Your task to perform on an android device: Show the shopping cart on amazon.com. Search for macbook on amazon.com, select the first entry, add it to the cart, then select checkout. Image 0: 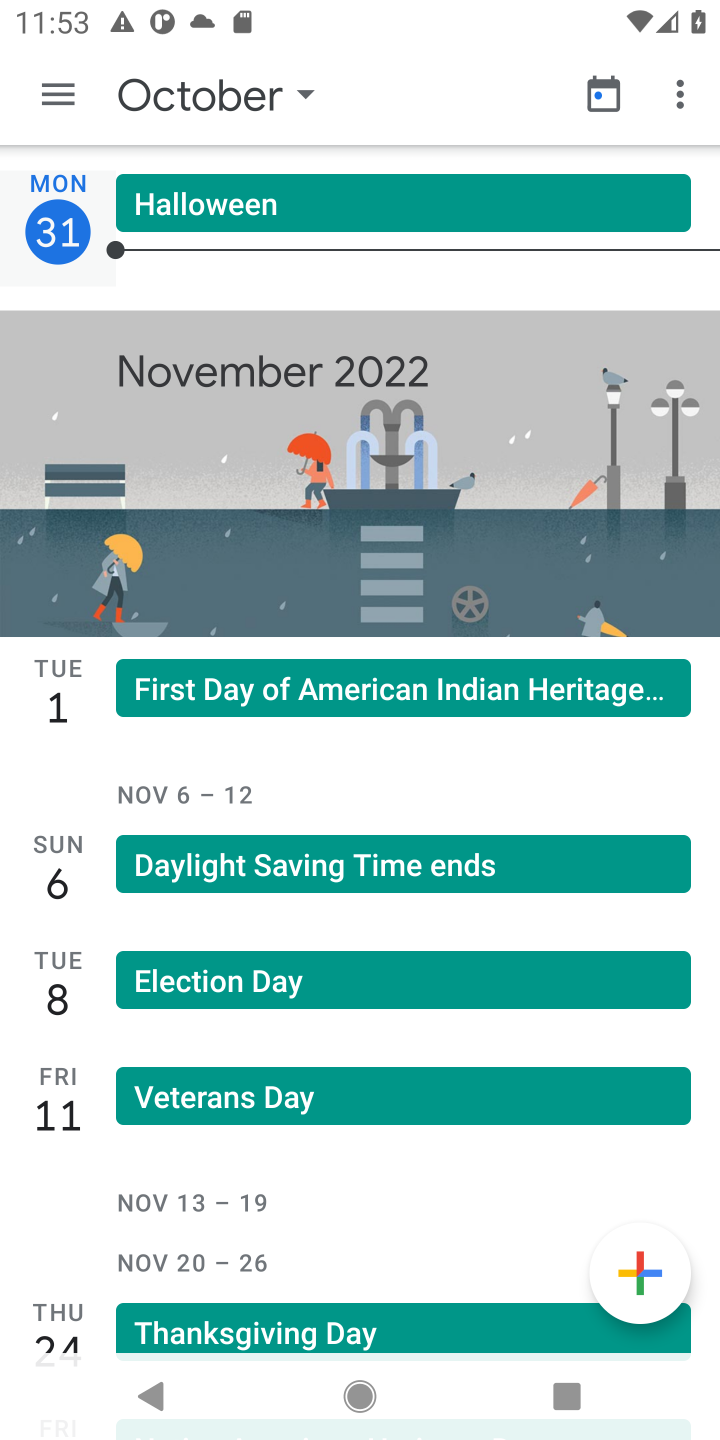
Step 0: press home button
Your task to perform on an android device: Show the shopping cart on amazon.com. Search for macbook on amazon.com, select the first entry, add it to the cart, then select checkout. Image 1: 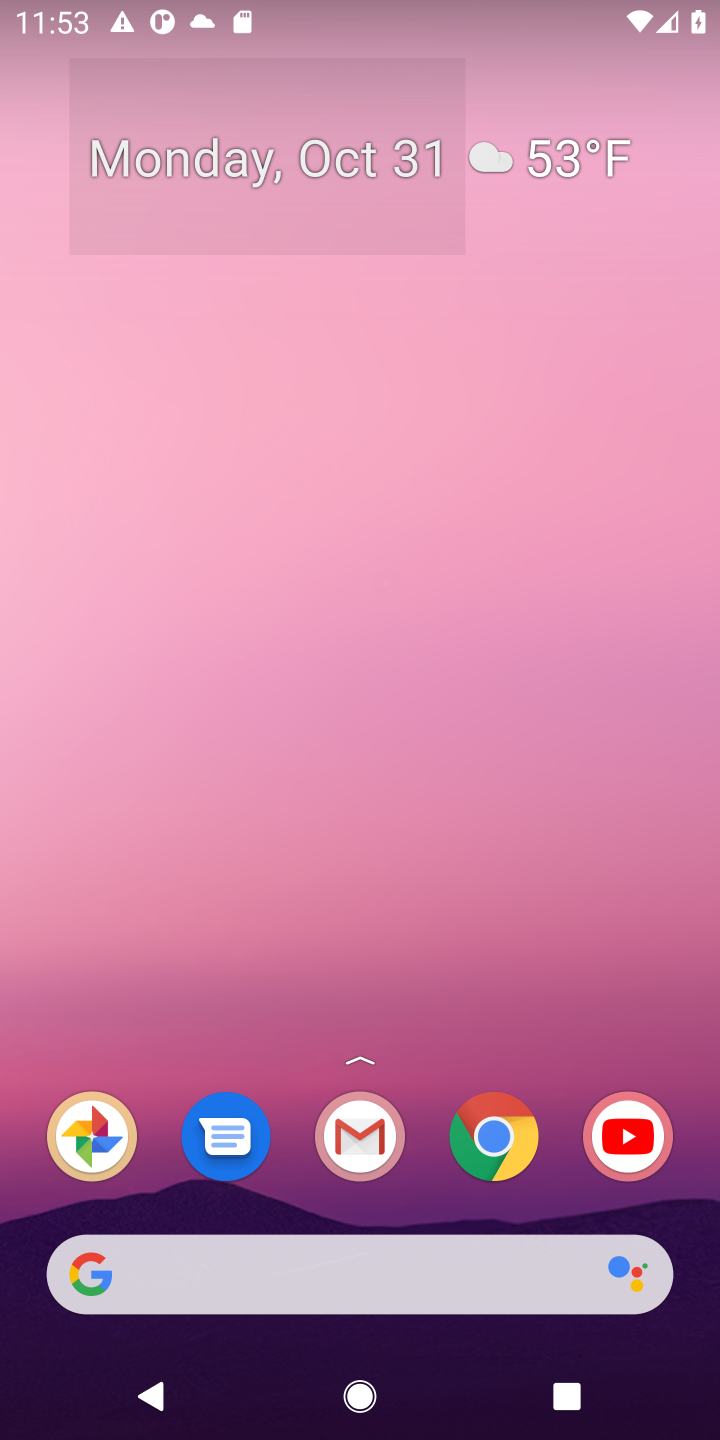
Step 1: click (136, 1269)
Your task to perform on an android device: Show the shopping cart on amazon.com. Search for macbook on amazon.com, select the first entry, add it to the cart, then select checkout. Image 2: 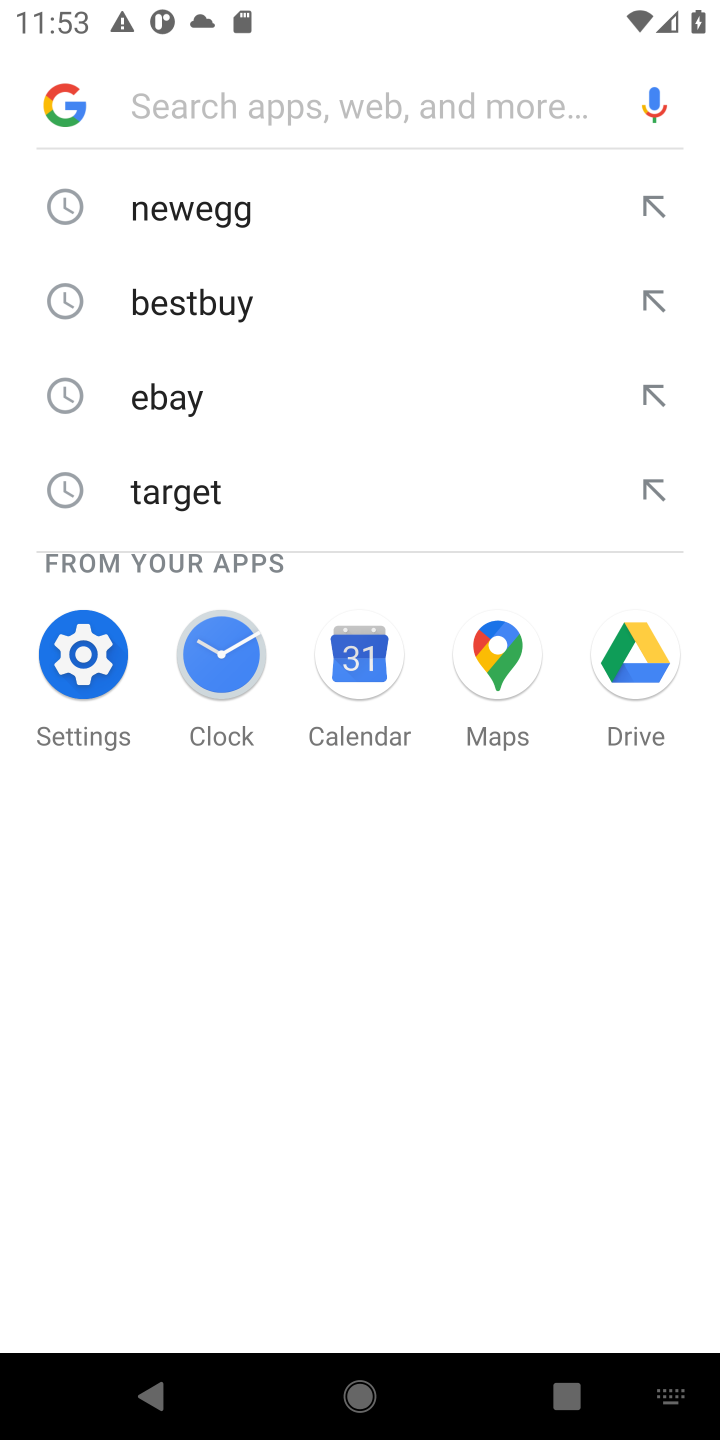
Step 2: type " amazon.com"
Your task to perform on an android device: Show the shopping cart on amazon.com. Search for macbook on amazon.com, select the first entry, add it to the cart, then select checkout. Image 3: 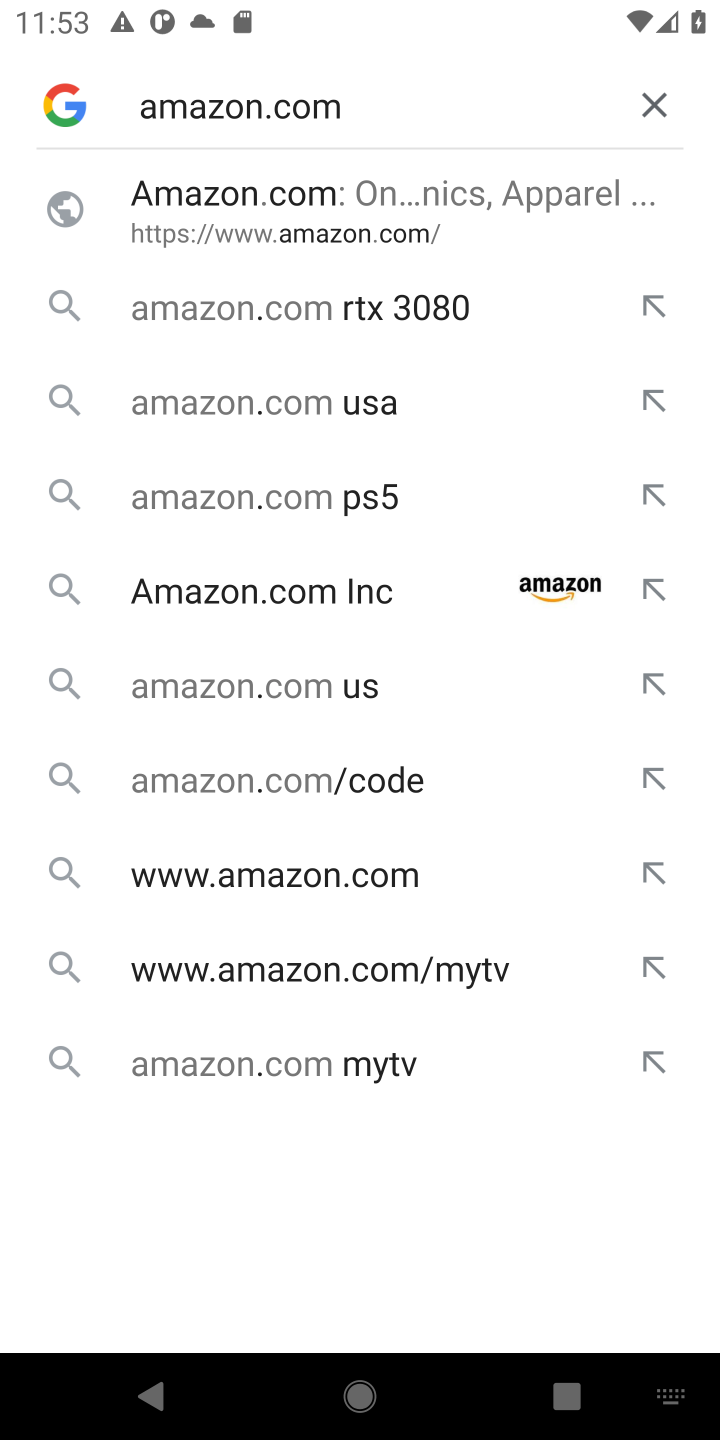
Step 3: press enter
Your task to perform on an android device: Show the shopping cart on amazon.com. Search for macbook on amazon.com, select the first entry, add it to the cart, then select checkout. Image 4: 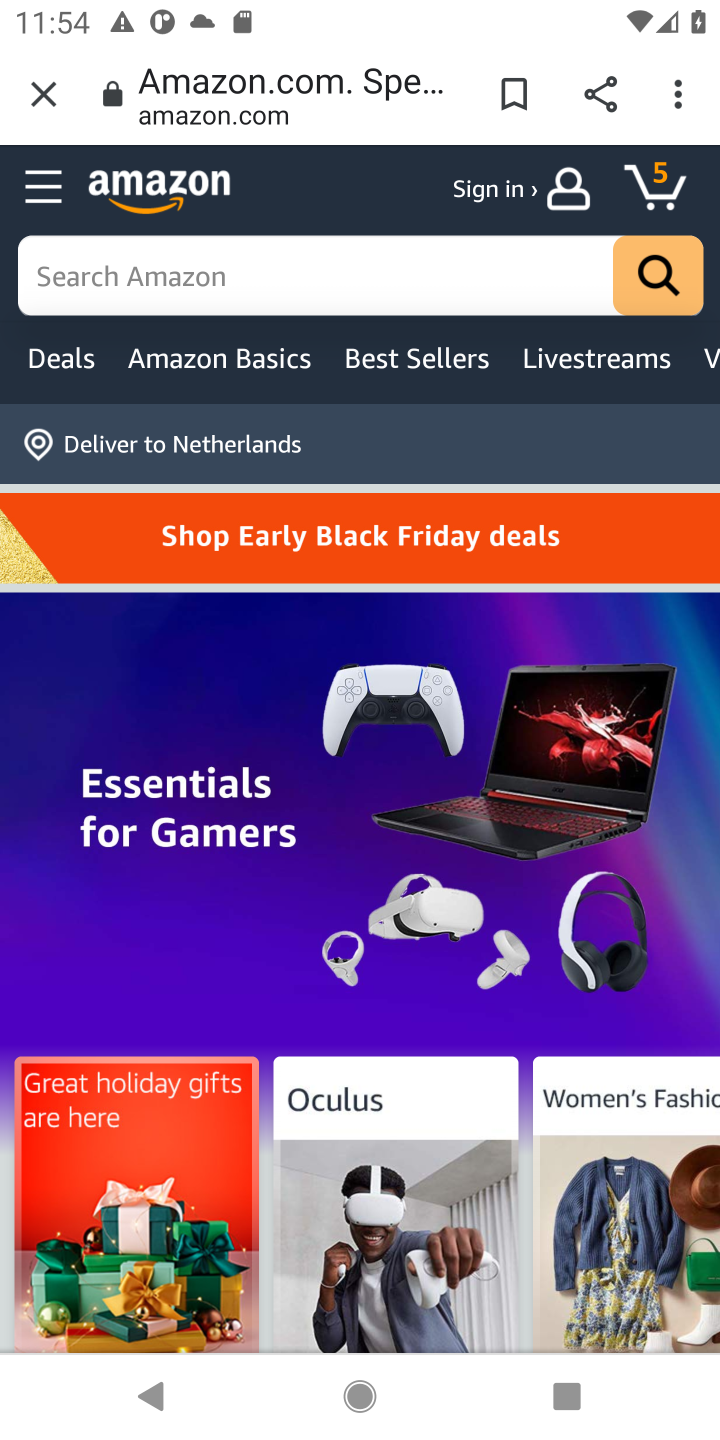
Step 4: click (652, 182)
Your task to perform on an android device: Show the shopping cart on amazon.com. Search for macbook on amazon.com, select the first entry, add it to the cart, then select checkout. Image 5: 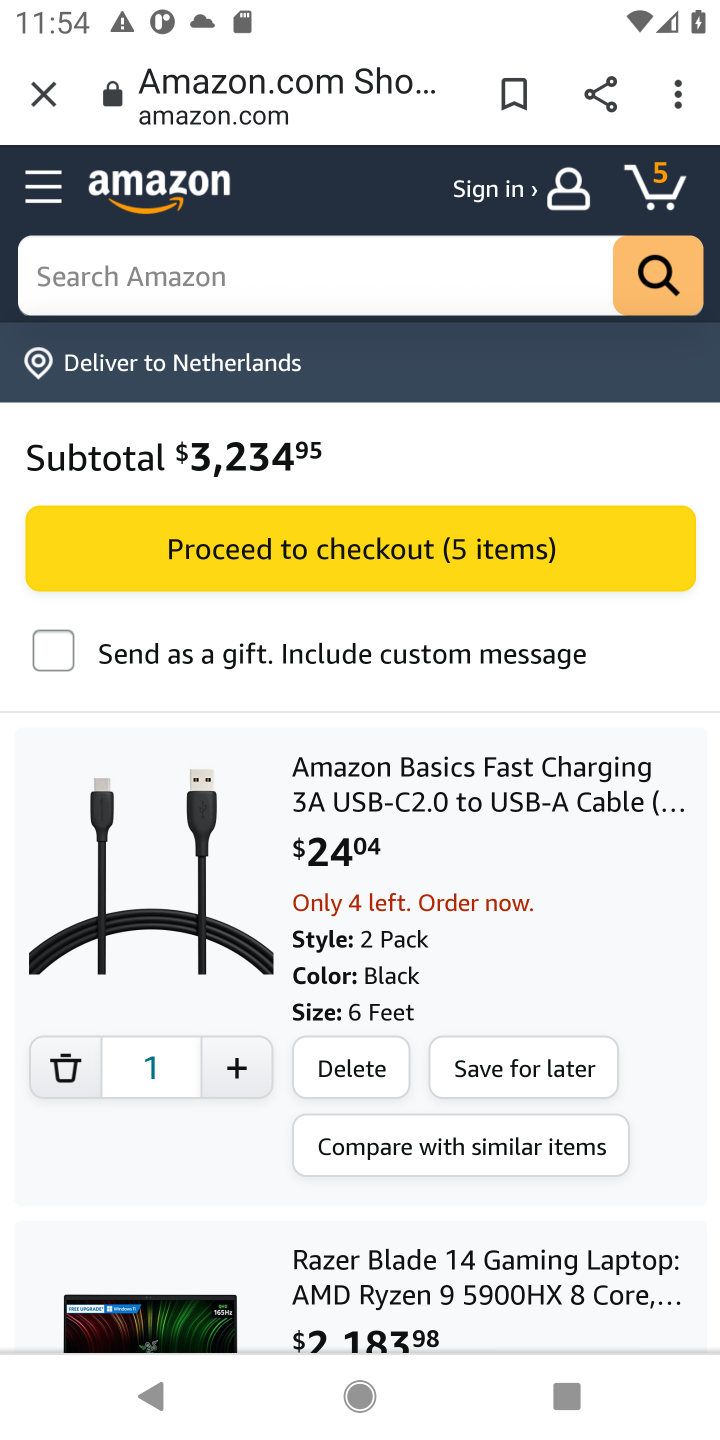
Step 5: click (216, 271)
Your task to perform on an android device: Show the shopping cart on amazon.com. Search for macbook on amazon.com, select the first entry, add it to the cart, then select checkout. Image 6: 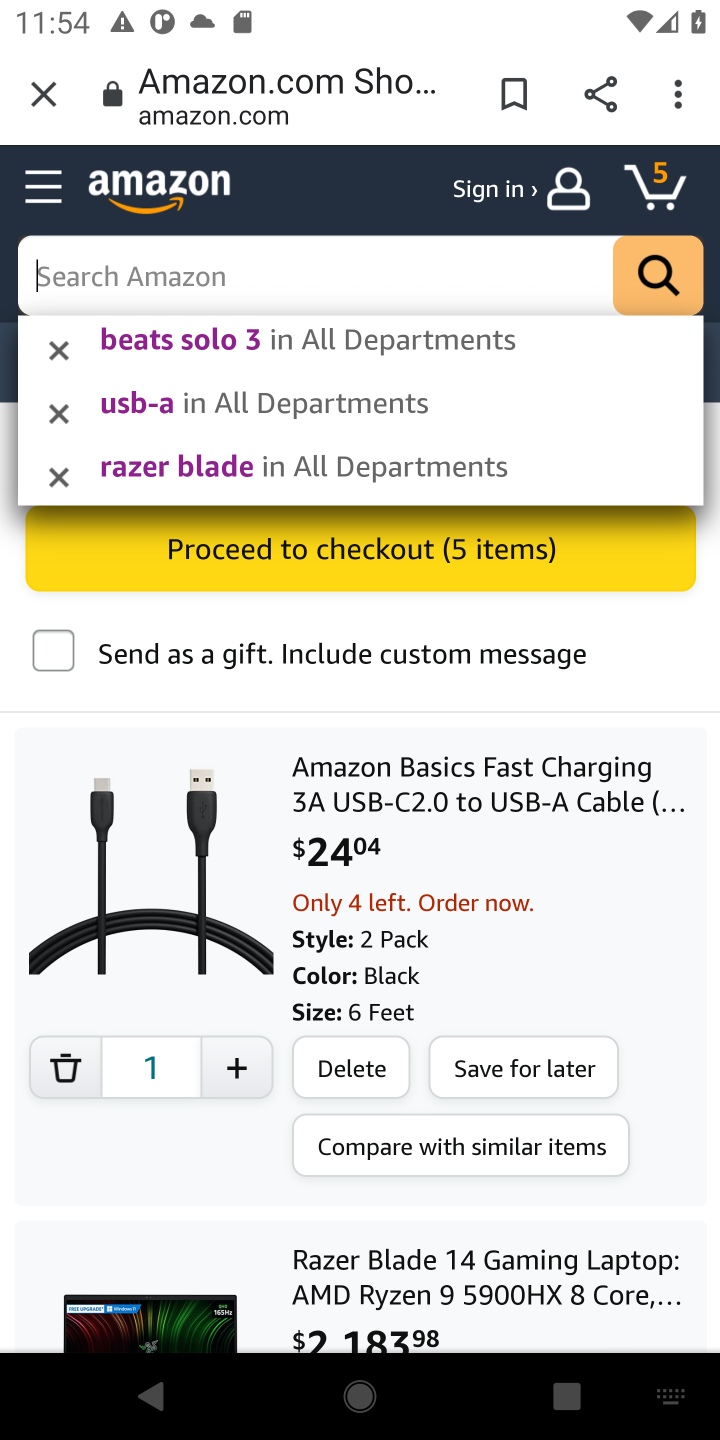
Step 6: type "macbook "
Your task to perform on an android device: Show the shopping cart on amazon.com. Search for macbook on amazon.com, select the first entry, add it to the cart, then select checkout. Image 7: 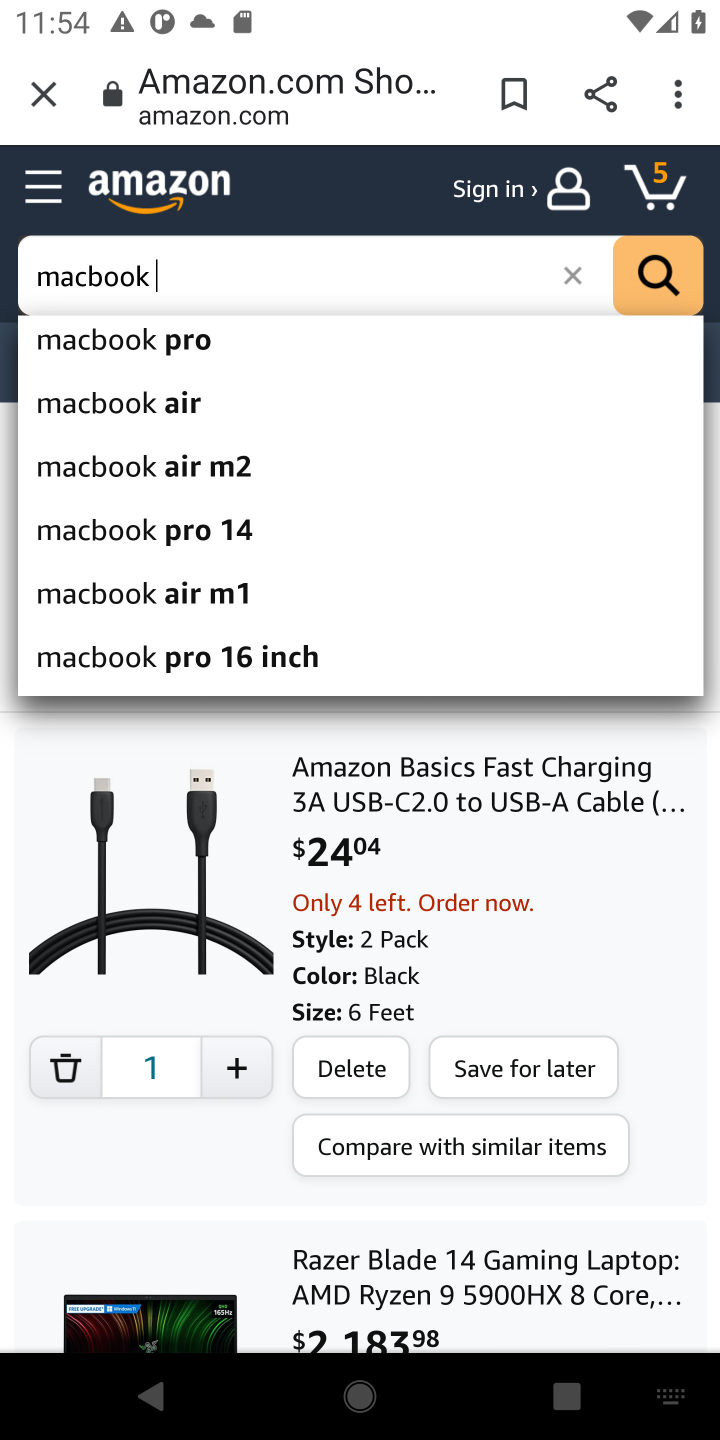
Step 7: click (669, 275)
Your task to perform on an android device: Show the shopping cart on amazon.com. Search for macbook on amazon.com, select the first entry, add it to the cart, then select checkout. Image 8: 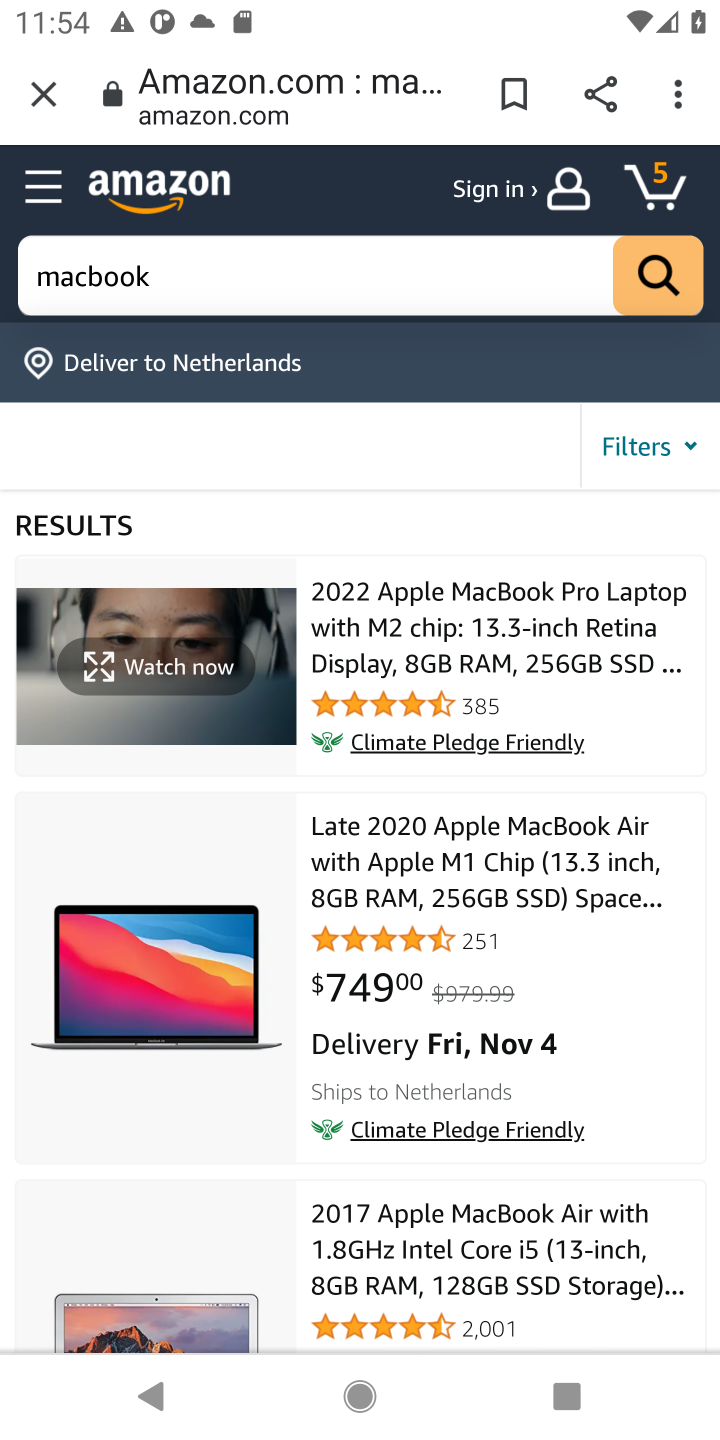
Step 8: click (517, 644)
Your task to perform on an android device: Show the shopping cart on amazon.com. Search for macbook on amazon.com, select the first entry, add it to the cart, then select checkout. Image 9: 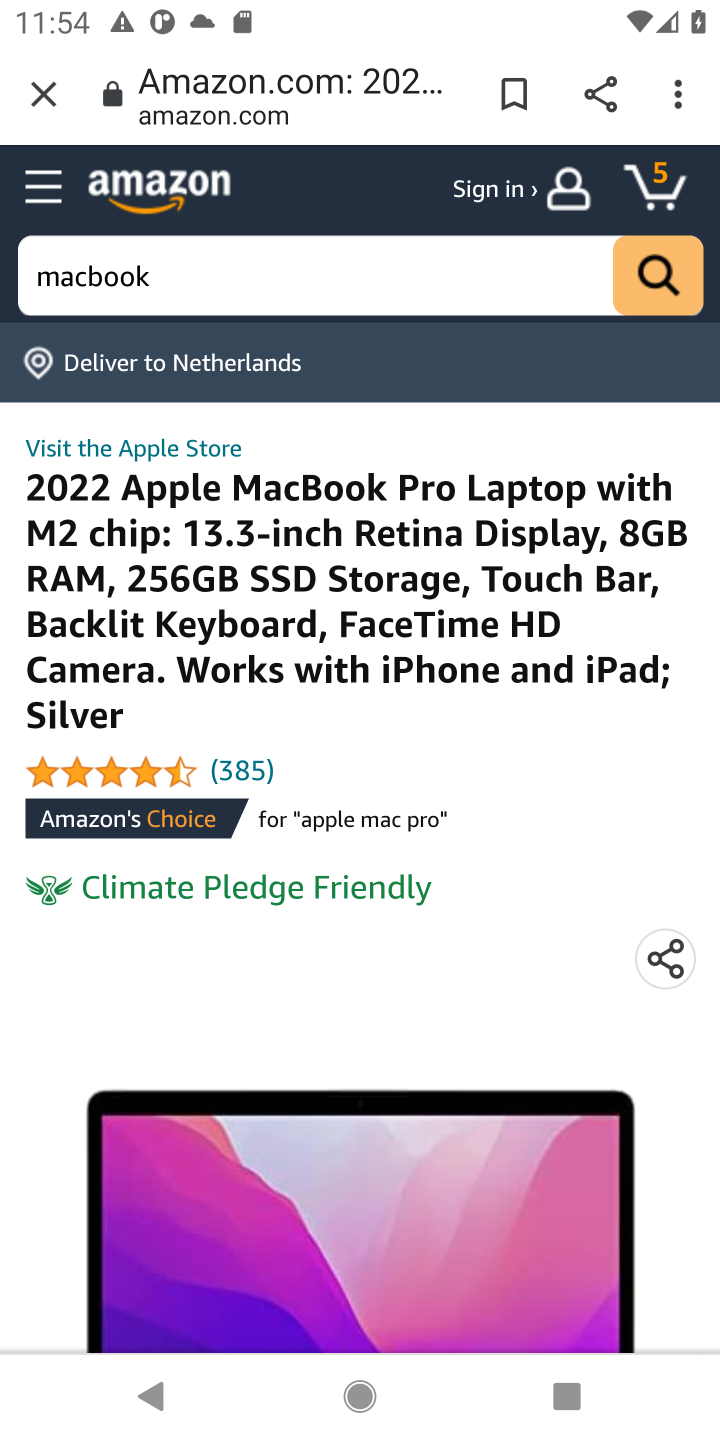
Step 9: task complete